Your task to perform on an android device: Go to network settings Image 0: 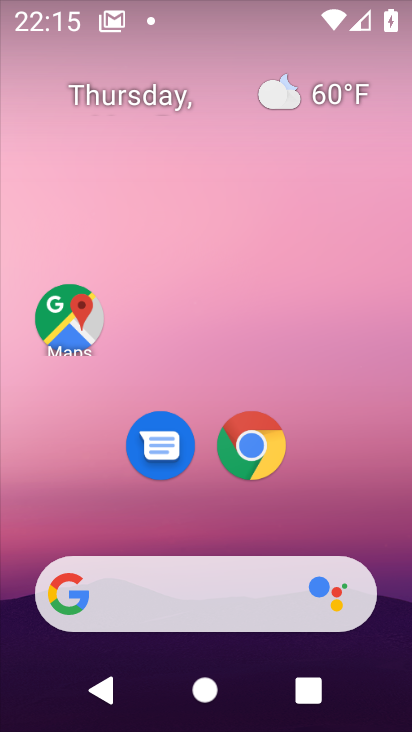
Step 0: drag from (201, 564) to (232, 78)
Your task to perform on an android device: Go to network settings Image 1: 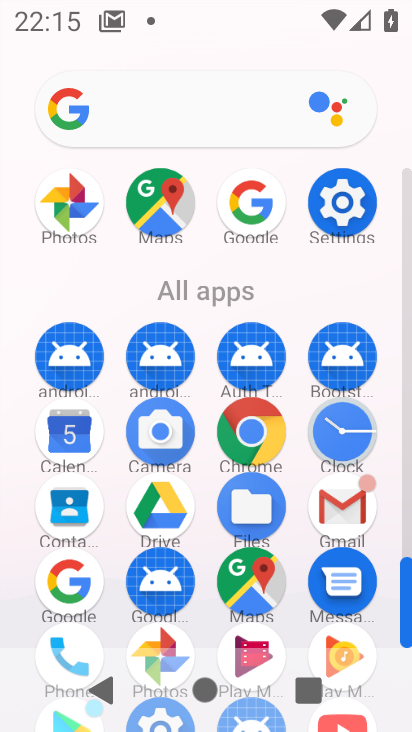
Step 1: click (368, 220)
Your task to perform on an android device: Go to network settings Image 2: 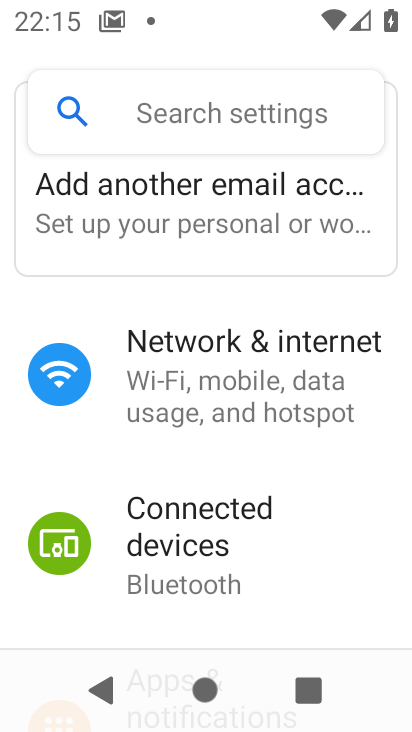
Step 2: click (277, 395)
Your task to perform on an android device: Go to network settings Image 3: 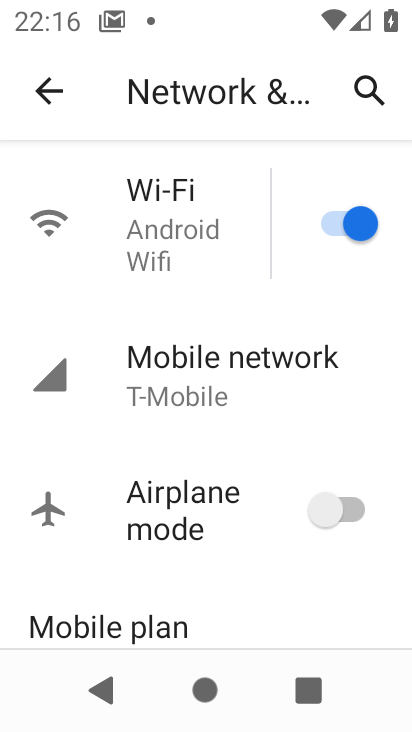
Step 3: task complete